Your task to perform on an android device: turn on notifications settings in the gmail app Image 0: 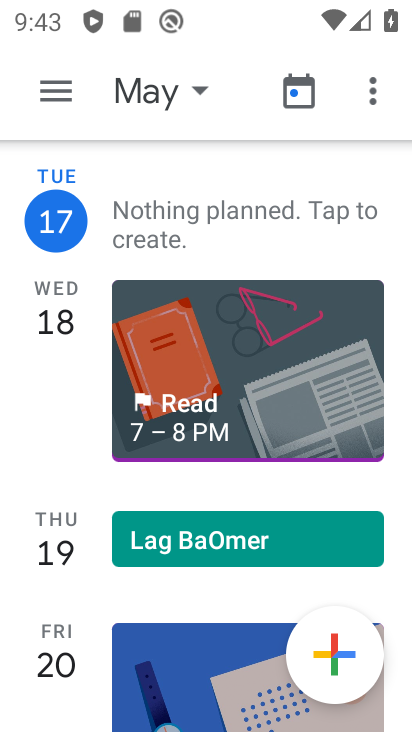
Step 0: press home button
Your task to perform on an android device: turn on notifications settings in the gmail app Image 1: 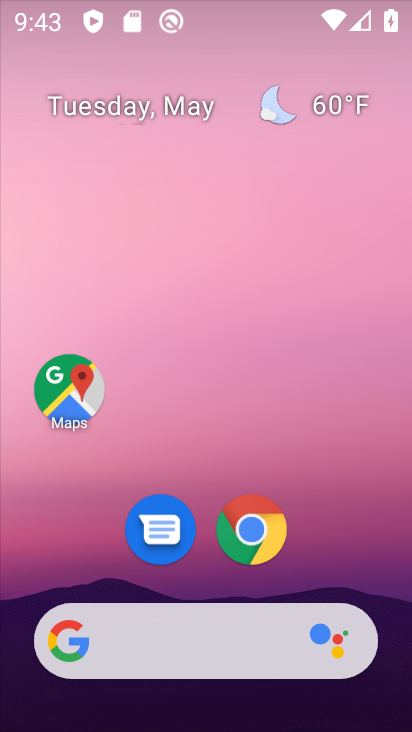
Step 1: drag from (120, 592) to (123, 248)
Your task to perform on an android device: turn on notifications settings in the gmail app Image 2: 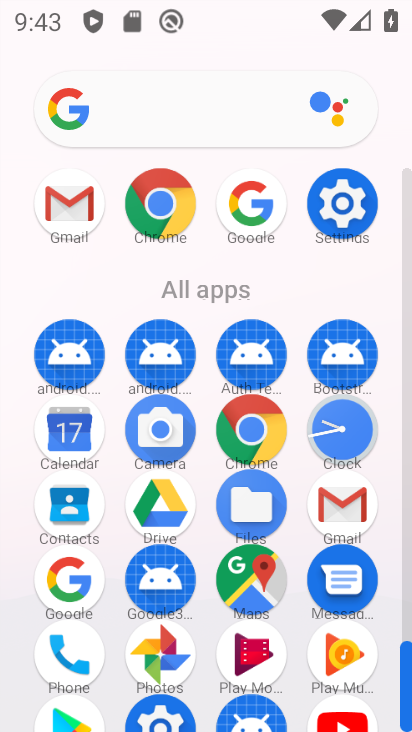
Step 2: click (54, 203)
Your task to perform on an android device: turn on notifications settings in the gmail app Image 3: 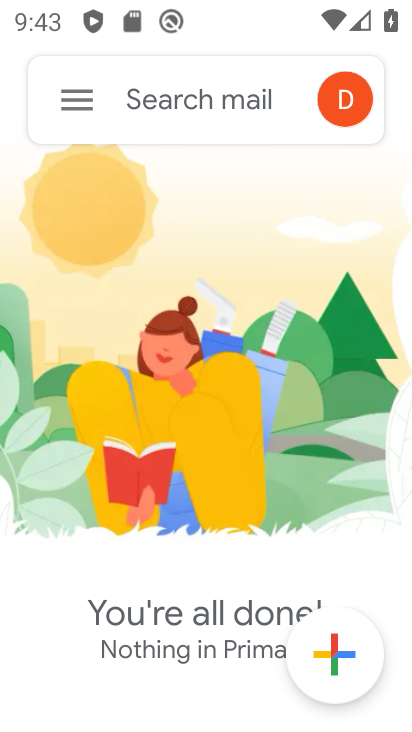
Step 3: click (61, 104)
Your task to perform on an android device: turn on notifications settings in the gmail app Image 4: 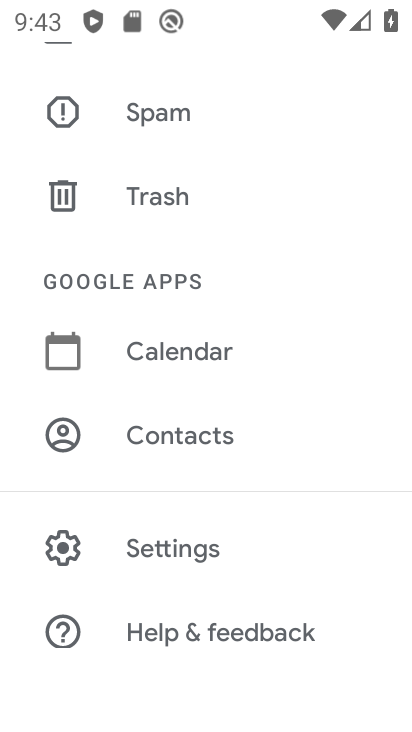
Step 4: click (127, 537)
Your task to perform on an android device: turn on notifications settings in the gmail app Image 5: 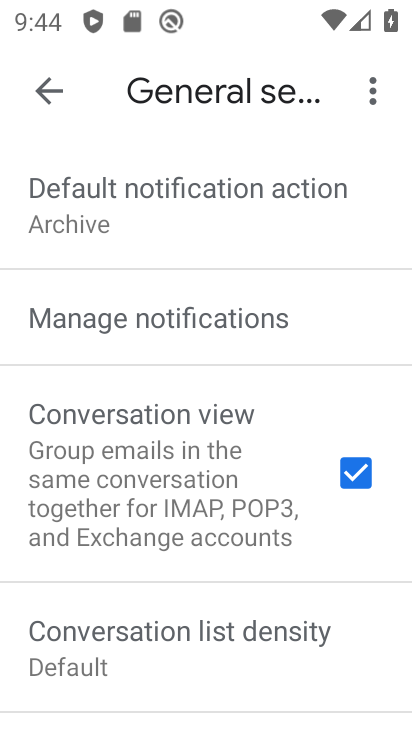
Step 5: click (98, 328)
Your task to perform on an android device: turn on notifications settings in the gmail app Image 6: 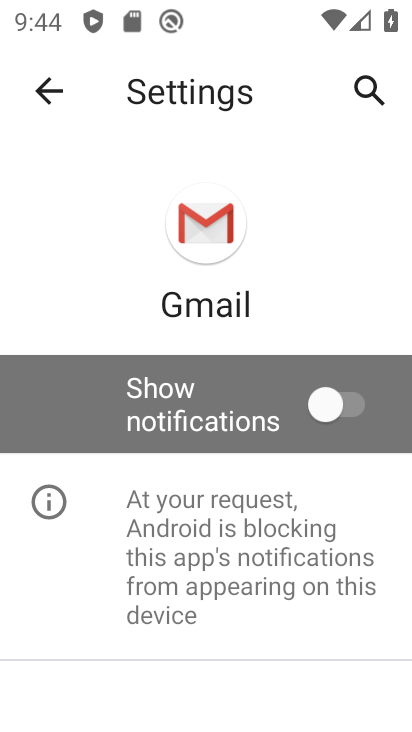
Step 6: click (351, 391)
Your task to perform on an android device: turn on notifications settings in the gmail app Image 7: 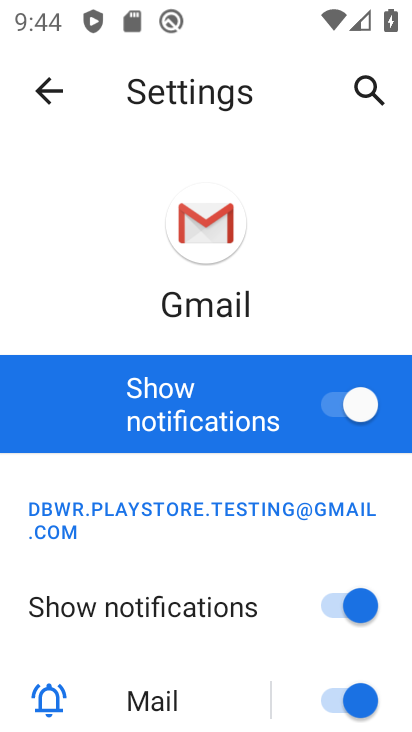
Step 7: task complete